Your task to perform on an android device: Turn off the flashlight Image 0: 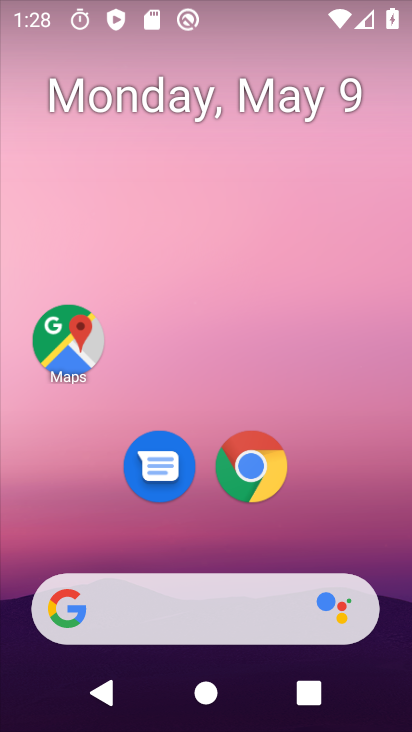
Step 0: drag from (293, 568) to (295, 203)
Your task to perform on an android device: Turn off the flashlight Image 1: 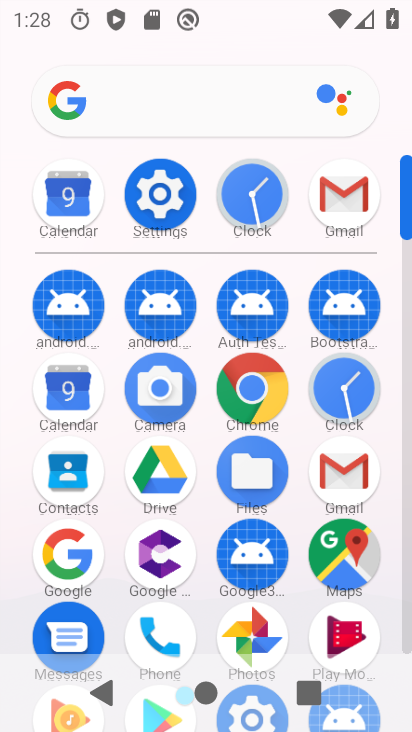
Step 1: task complete